Your task to perform on an android device: See recent photos Image 0: 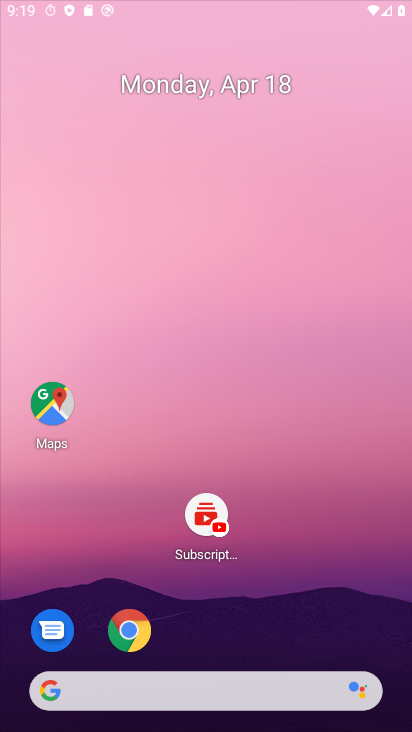
Step 0: click (213, 183)
Your task to perform on an android device: See recent photos Image 1: 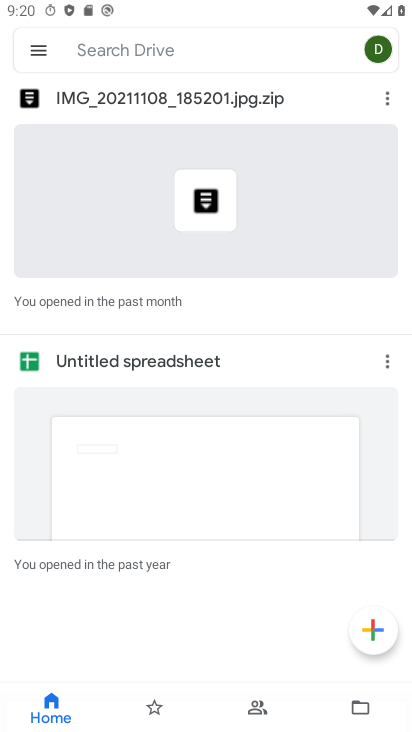
Step 1: press back button
Your task to perform on an android device: See recent photos Image 2: 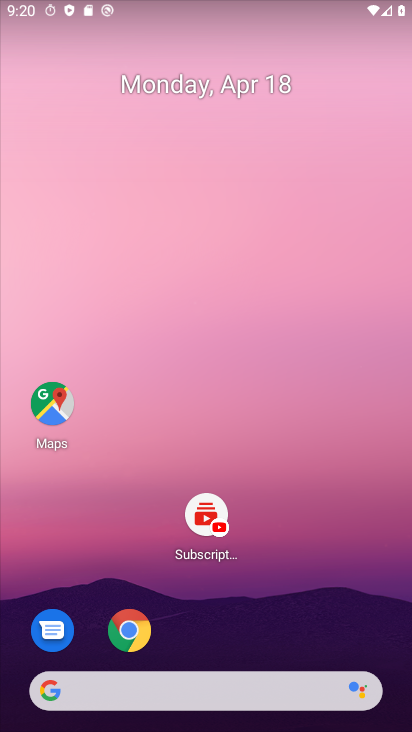
Step 2: drag from (214, 554) to (234, 169)
Your task to perform on an android device: See recent photos Image 3: 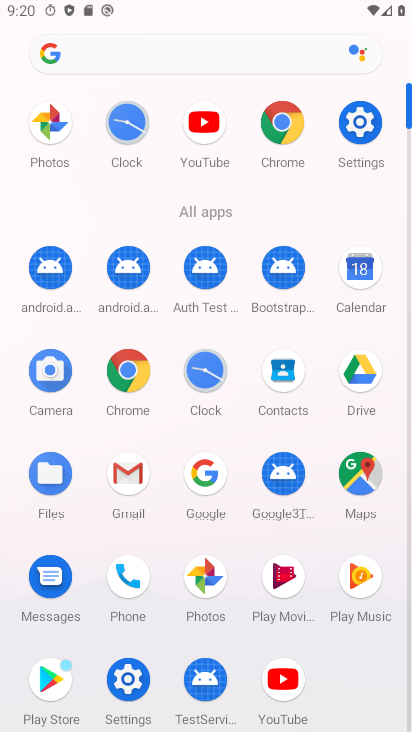
Step 3: click (121, 687)
Your task to perform on an android device: See recent photos Image 4: 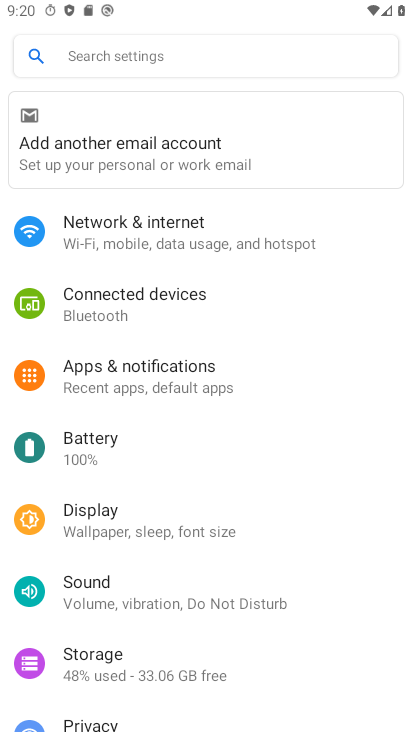
Step 4: drag from (114, 607) to (143, 387)
Your task to perform on an android device: See recent photos Image 5: 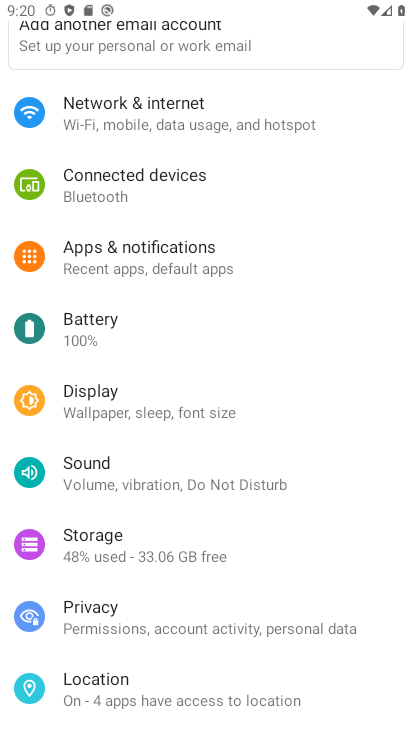
Step 5: press home button
Your task to perform on an android device: See recent photos Image 6: 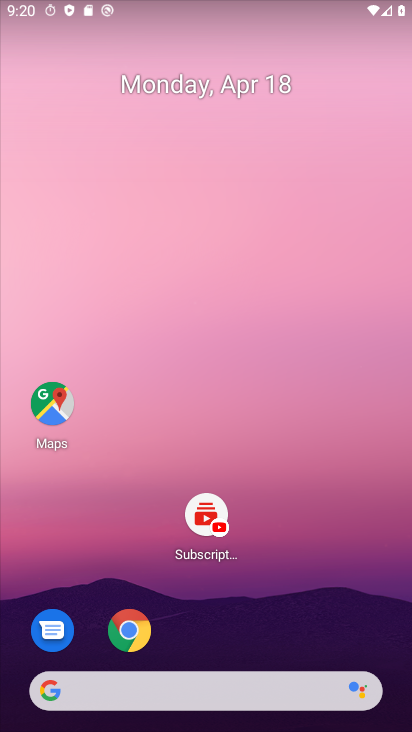
Step 6: drag from (192, 549) to (225, 193)
Your task to perform on an android device: See recent photos Image 7: 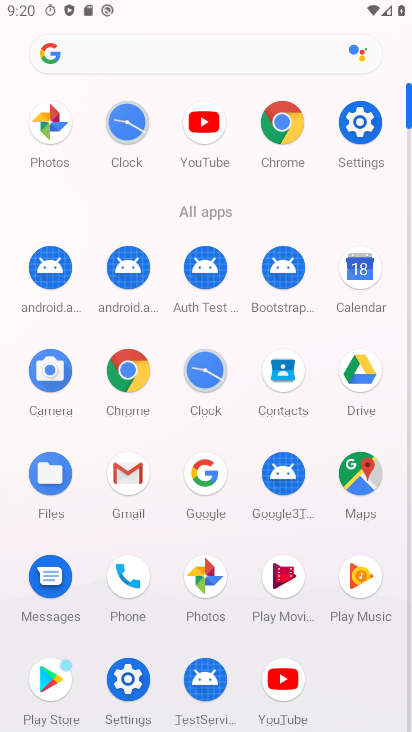
Step 7: click (211, 581)
Your task to perform on an android device: See recent photos Image 8: 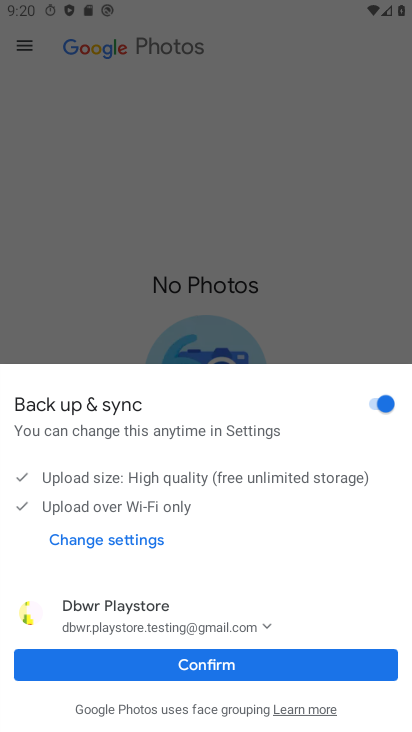
Step 8: click (212, 668)
Your task to perform on an android device: See recent photos Image 9: 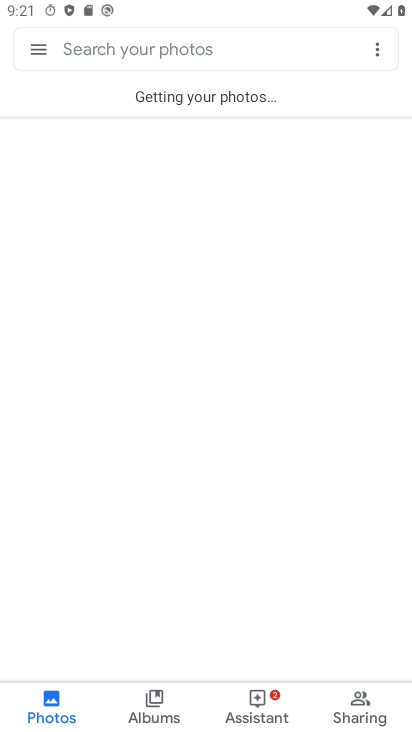
Step 9: click (165, 712)
Your task to perform on an android device: See recent photos Image 10: 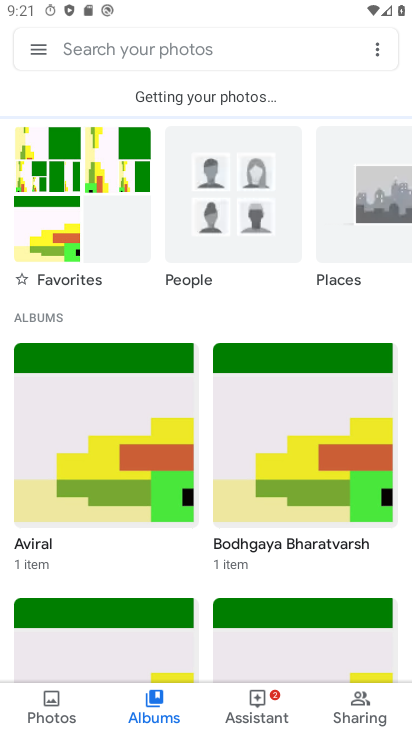
Step 10: click (35, 53)
Your task to perform on an android device: See recent photos Image 11: 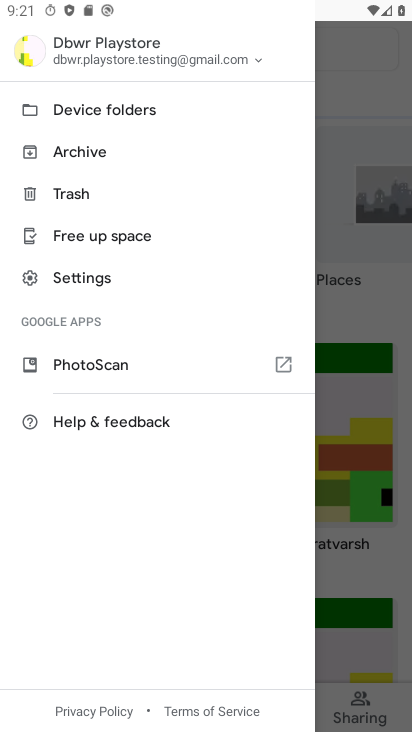
Step 11: click (348, 112)
Your task to perform on an android device: See recent photos Image 12: 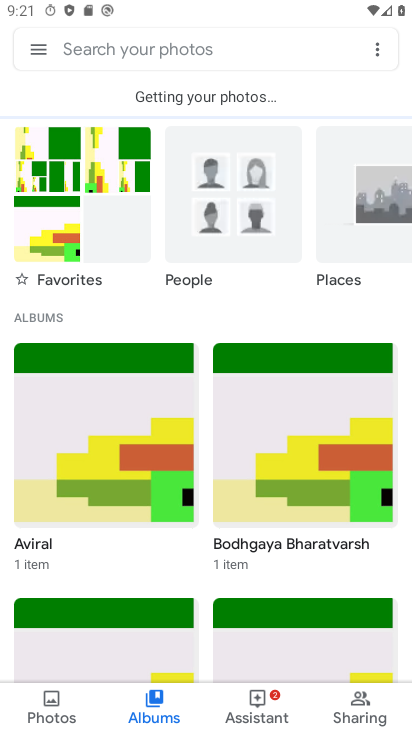
Step 12: drag from (141, 491) to (195, 177)
Your task to perform on an android device: See recent photos Image 13: 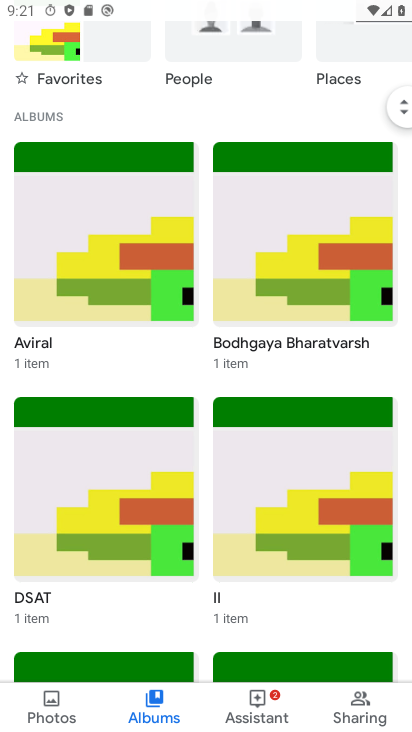
Step 13: click (258, 709)
Your task to perform on an android device: See recent photos Image 14: 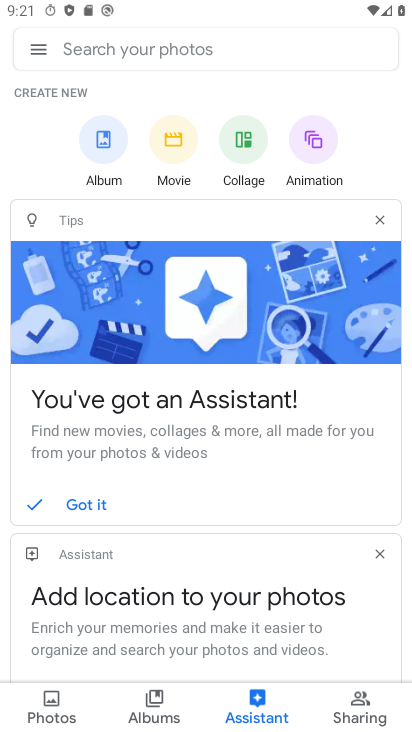
Step 14: click (66, 710)
Your task to perform on an android device: See recent photos Image 15: 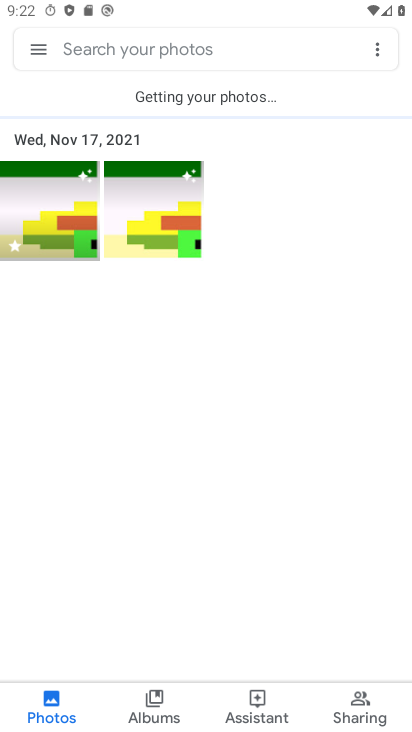
Step 15: click (378, 50)
Your task to perform on an android device: See recent photos Image 16: 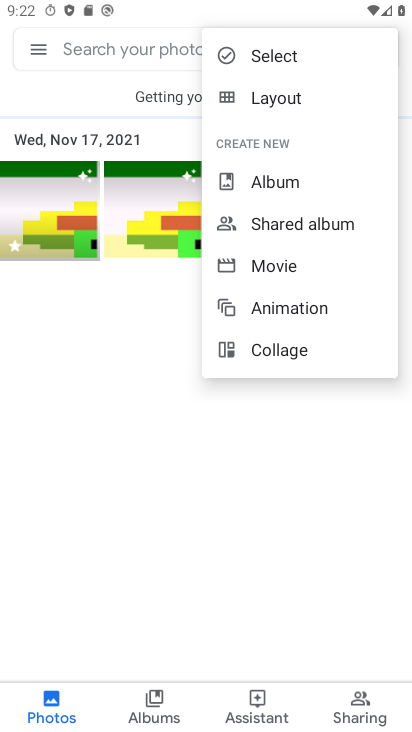
Step 16: click (166, 708)
Your task to perform on an android device: See recent photos Image 17: 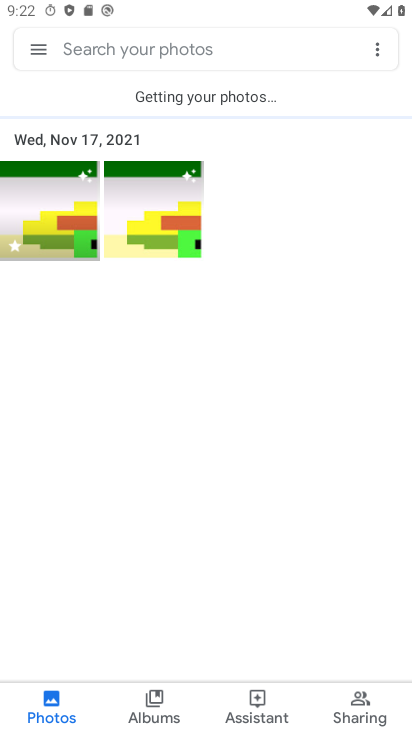
Step 17: click (160, 717)
Your task to perform on an android device: See recent photos Image 18: 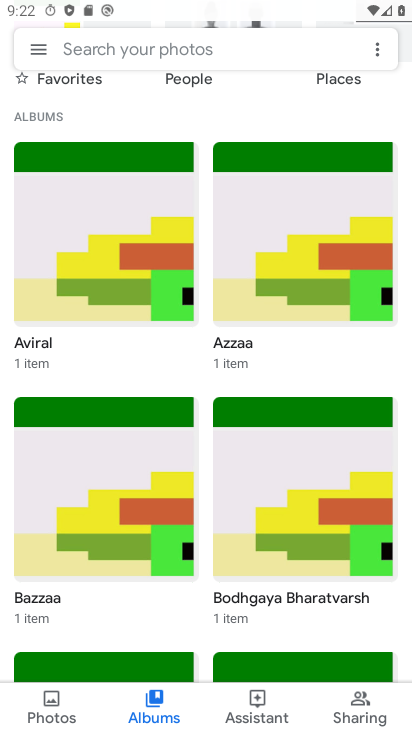
Step 18: task complete